Your task to perform on an android device: toggle translation in the chrome app Image 0: 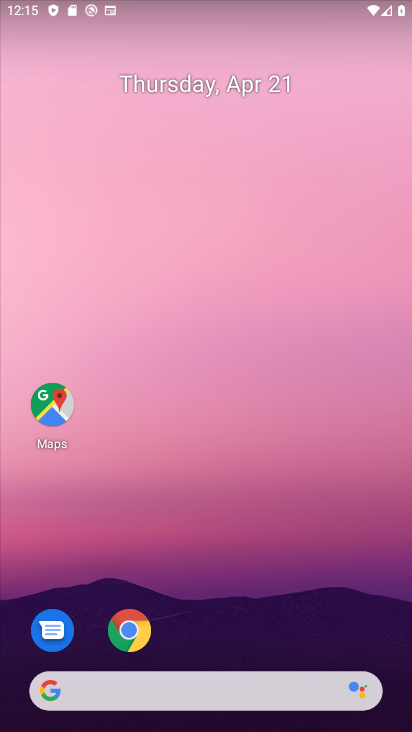
Step 0: drag from (360, 631) to (2, 230)
Your task to perform on an android device: toggle translation in the chrome app Image 1: 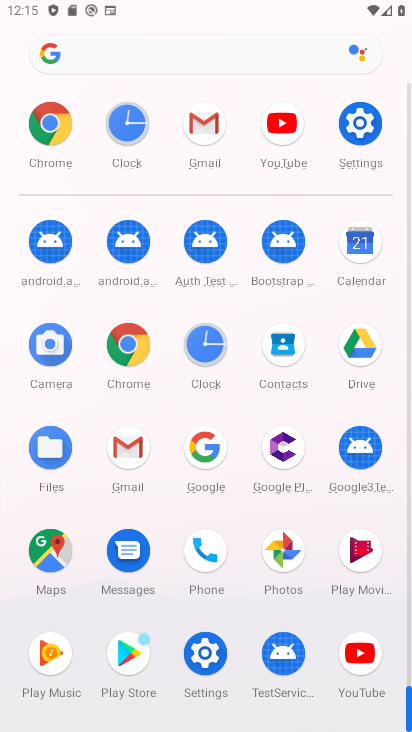
Step 1: click (124, 340)
Your task to perform on an android device: toggle translation in the chrome app Image 2: 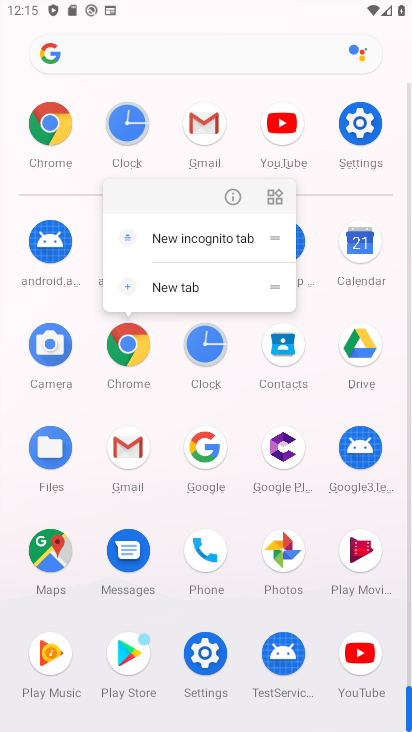
Step 2: click (125, 336)
Your task to perform on an android device: toggle translation in the chrome app Image 3: 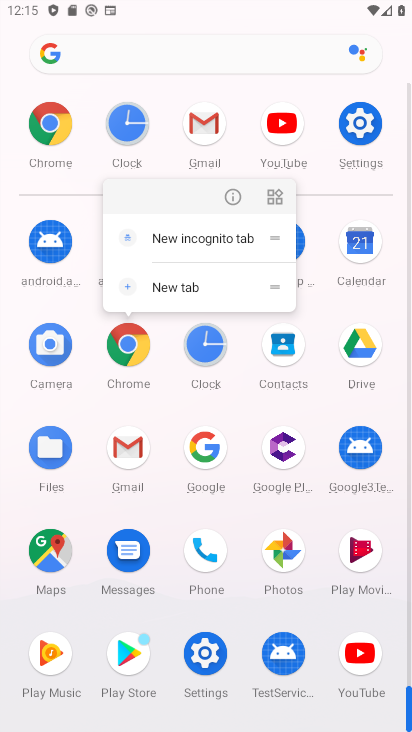
Step 3: click (125, 336)
Your task to perform on an android device: toggle translation in the chrome app Image 4: 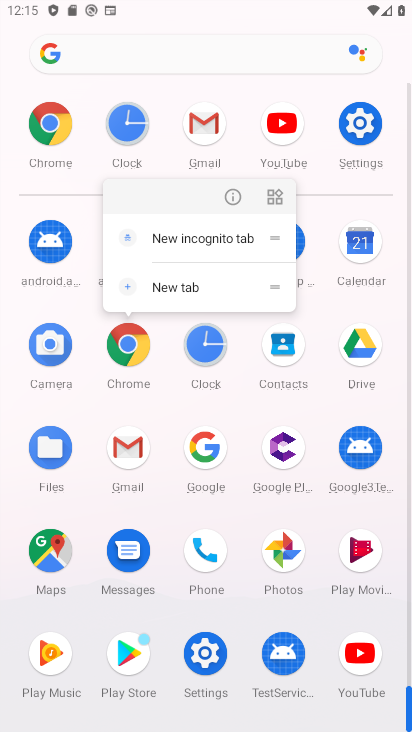
Step 4: click (126, 332)
Your task to perform on an android device: toggle translation in the chrome app Image 5: 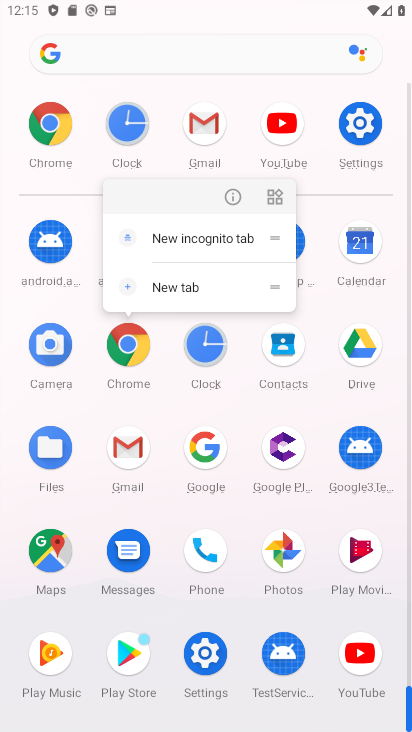
Step 5: click (126, 332)
Your task to perform on an android device: toggle translation in the chrome app Image 6: 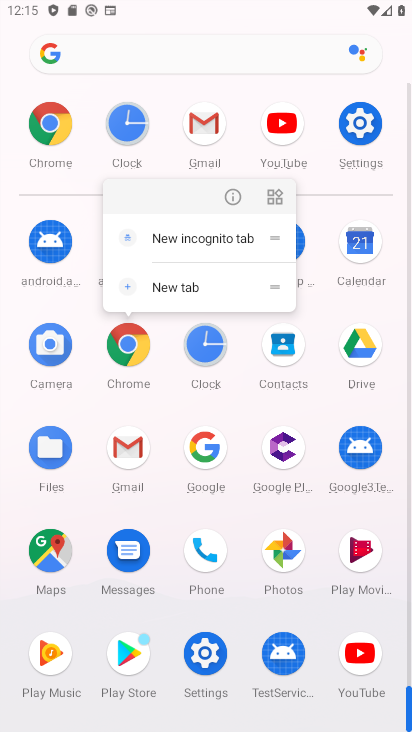
Step 6: click (126, 332)
Your task to perform on an android device: toggle translation in the chrome app Image 7: 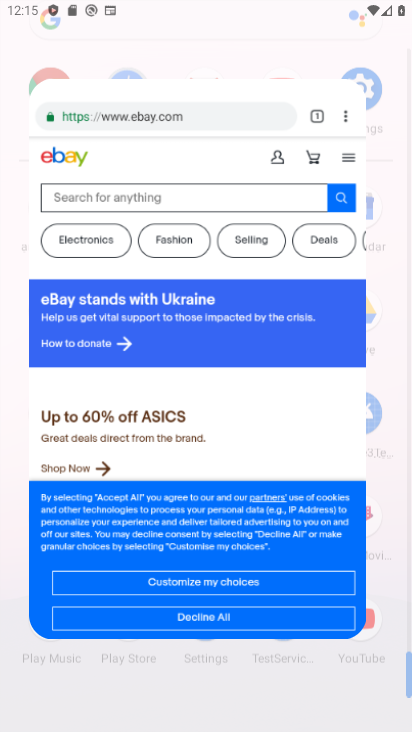
Step 7: click (126, 332)
Your task to perform on an android device: toggle translation in the chrome app Image 8: 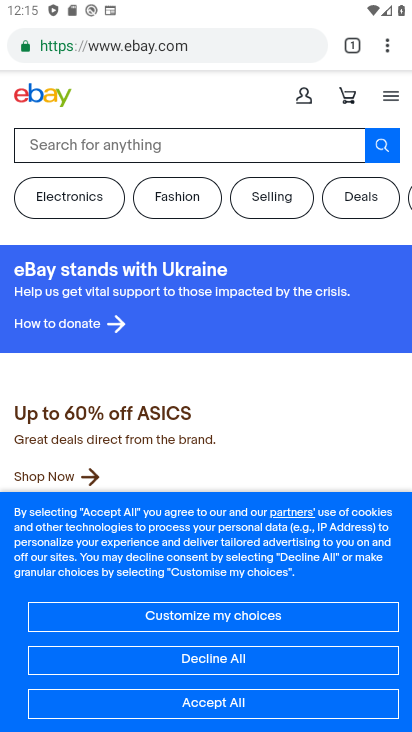
Step 8: drag from (382, 44) to (199, 553)
Your task to perform on an android device: toggle translation in the chrome app Image 9: 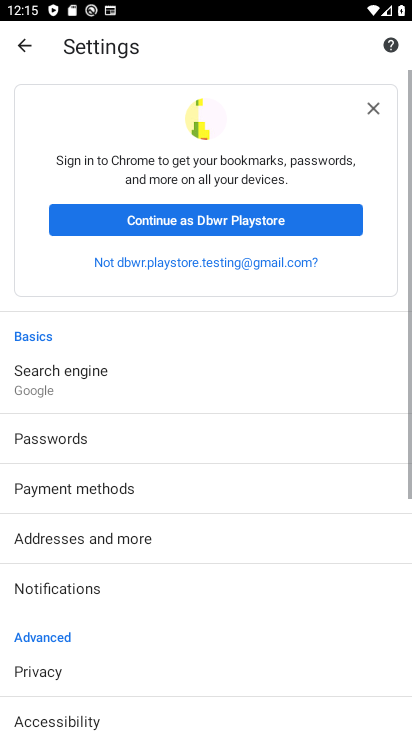
Step 9: drag from (193, 552) to (241, 221)
Your task to perform on an android device: toggle translation in the chrome app Image 10: 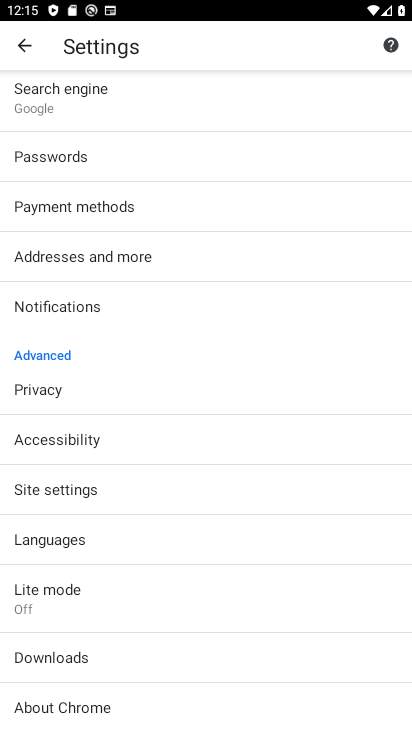
Step 10: click (89, 542)
Your task to perform on an android device: toggle translation in the chrome app Image 11: 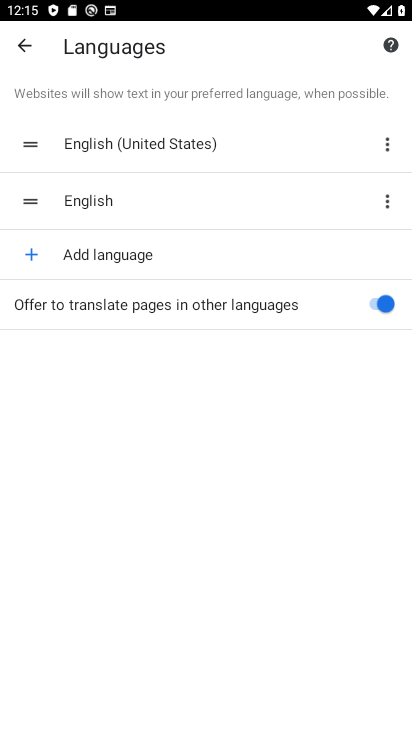
Step 11: click (373, 307)
Your task to perform on an android device: toggle translation in the chrome app Image 12: 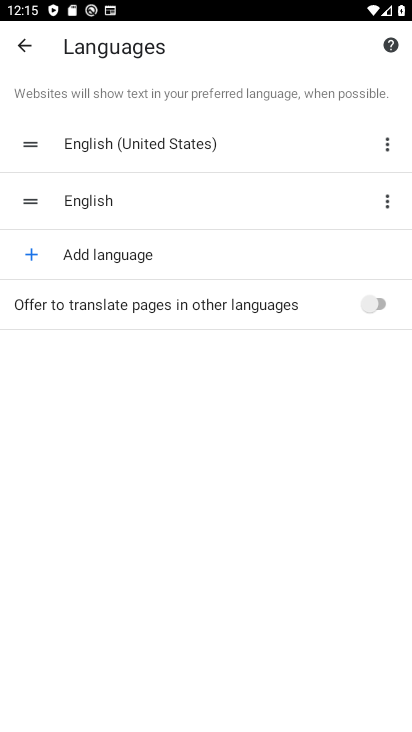
Step 12: task complete